Your task to perform on an android device: turn off data saver in the chrome app Image 0: 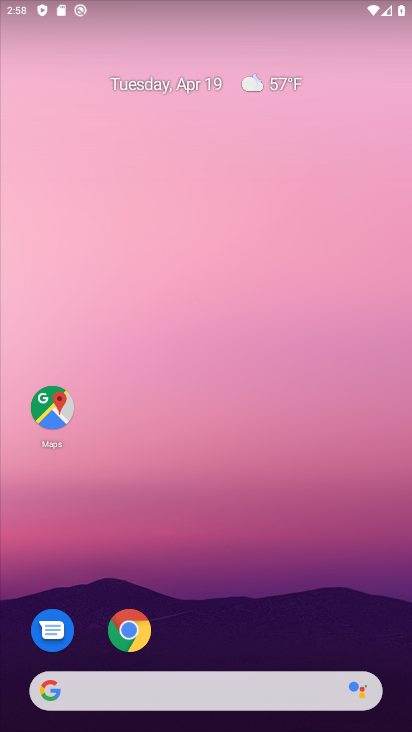
Step 0: click (129, 631)
Your task to perform on an android device: turn off data saver in the chrome app Image 1: 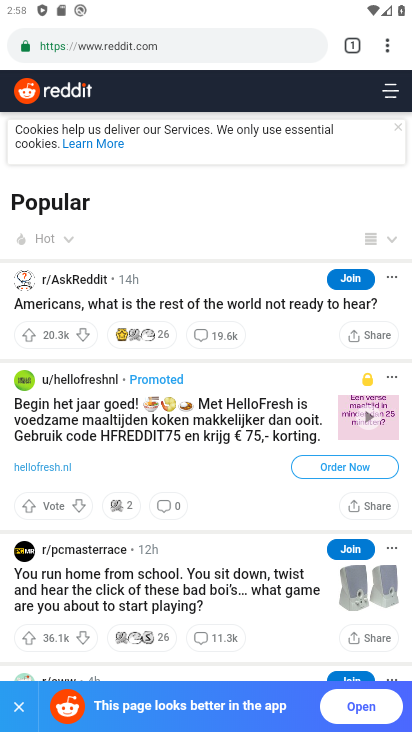
Step 1: drag from (381, 41) to (223, 587)
Your task to perform on an android device: turn off data saver in the chrome app Image 2: 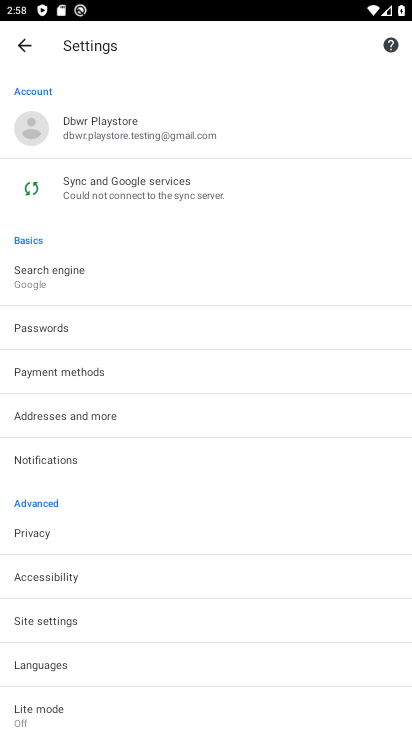
Step 2: click (74, 701)
Your task to perform on an android device: turn off data saver in the chrome app Image 3: 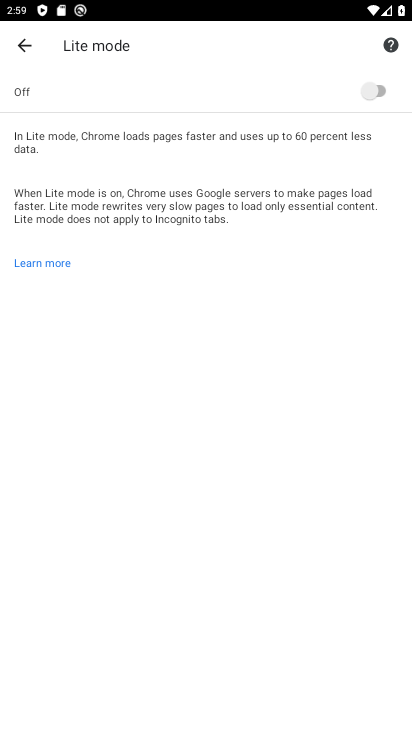
Step 3: task complete